Your task to perform on an android device: Open Reddit.com Image 0: 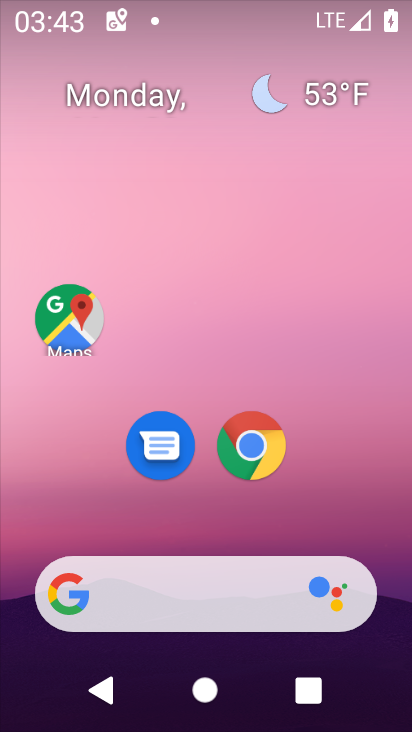
Step 0: click (261, 445)
Your task to perform on an android device: Open Reddit.com Image 1: 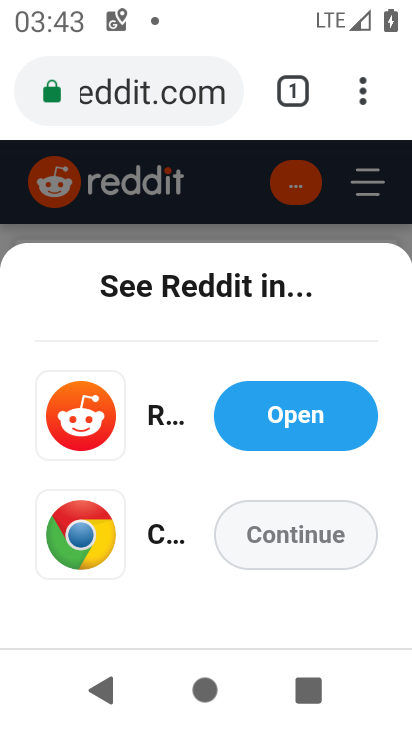
Step 1: click (238, 549)
Your task to perform on an android device: Open Reddit.com Image 2: 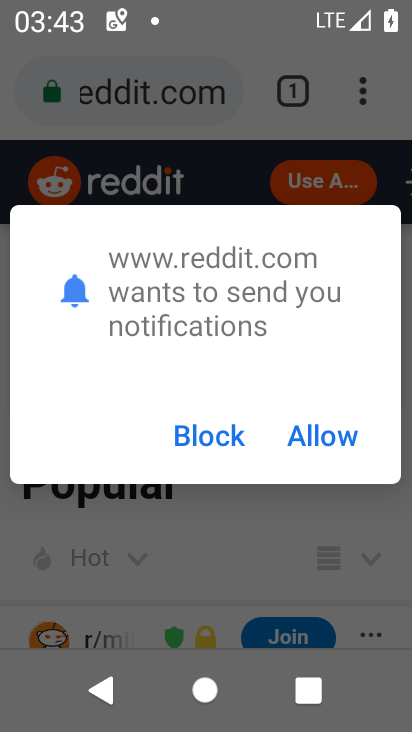
Step 2: click (311, 455)
Your task to perform on an android device: Open Reddit.com Image 3: 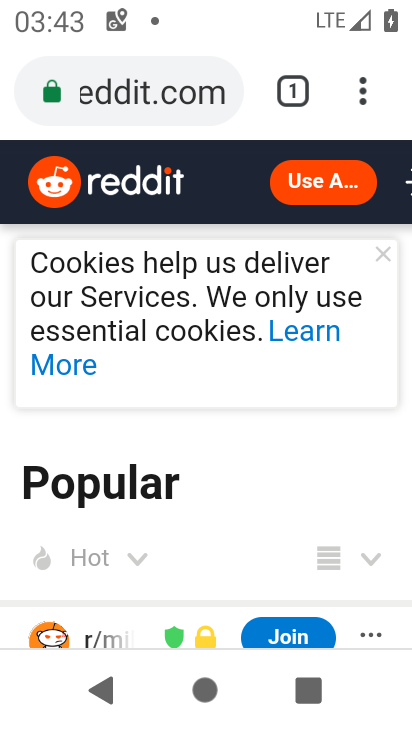
Step 3: task complete